Your task to perform on an android device: Open the calendar app, open the side menu, and click the "Day" option Image 0: 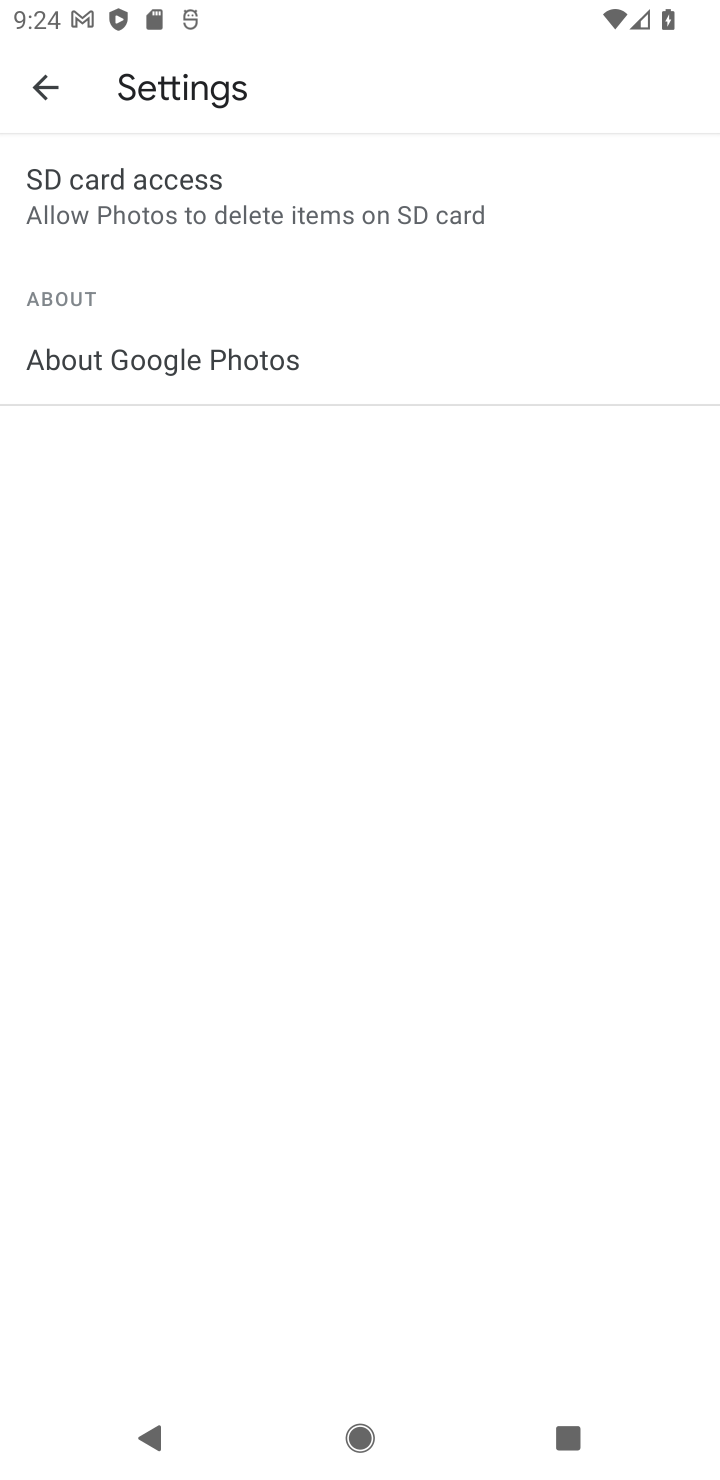
Step 0: press back button
Your task to perform on an android device: Open the calendar app, open the side menu, and click the "Day" option Image 1: 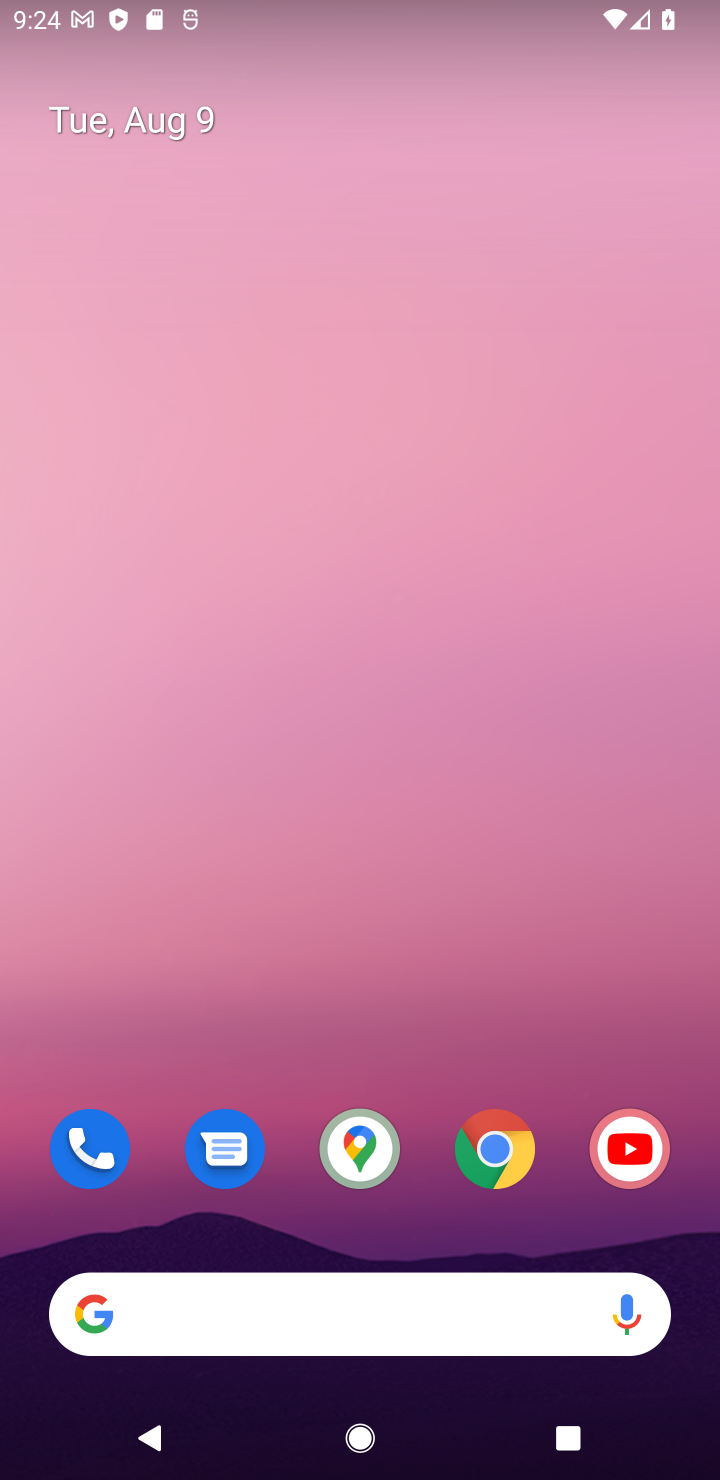
Step 1: drag from (224, 1323) to (429, 220)
Your task to perform on an android device: Open the calendar app, open the side menu, and click the "Day" option Image 2: 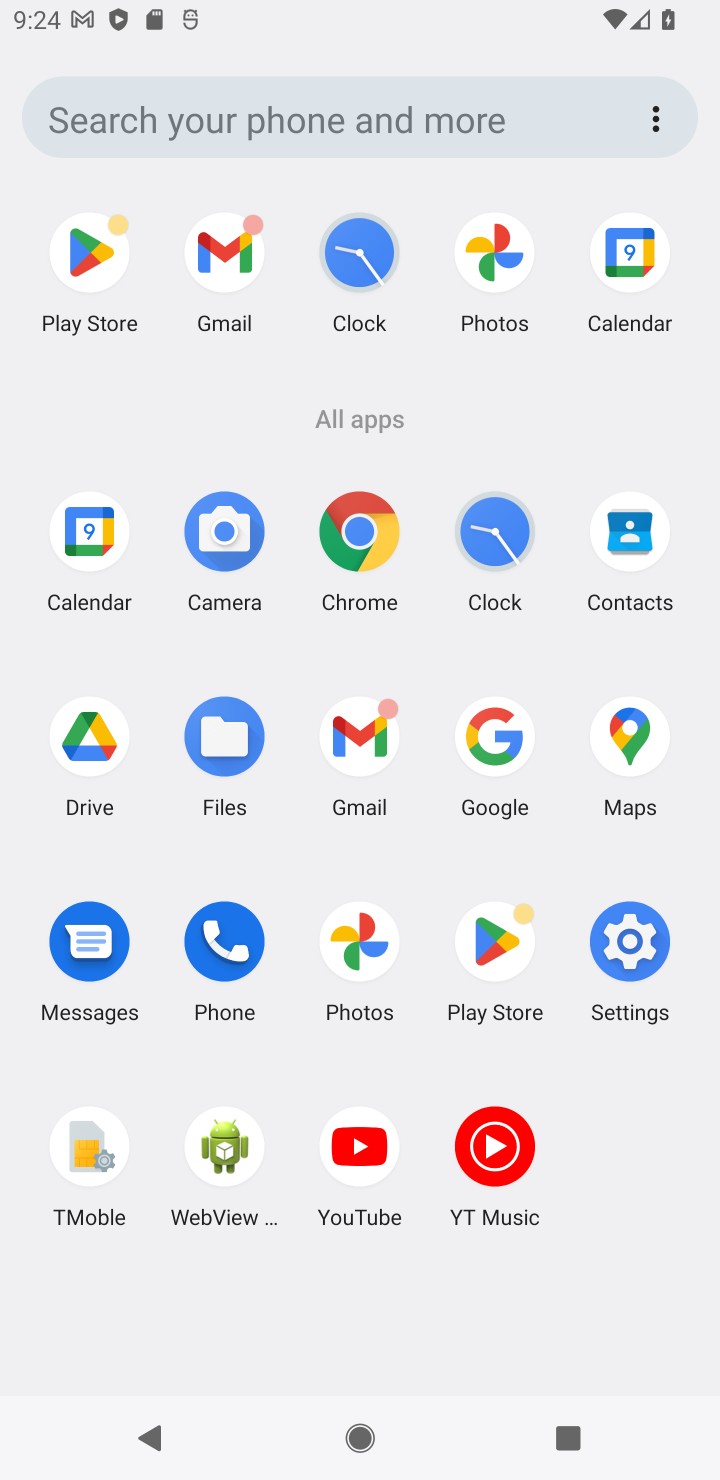
Step 2: click (621, 260)
Your task to perform on an android device: Open the calendar app, open the side menu, and click the "Day" option Image 3: 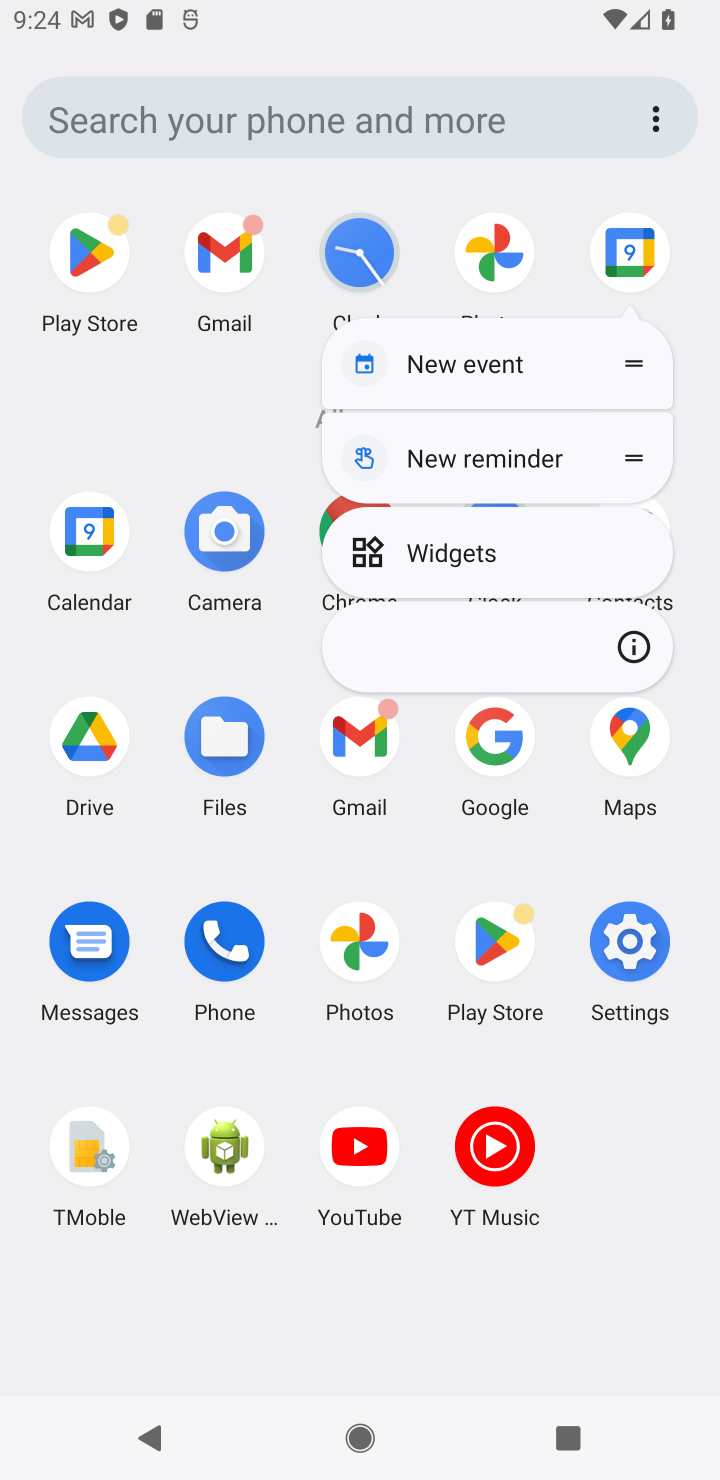
Step 3: click (647, 246)
Your task to perform on an android device: Open the calendar app, open the side menu, and click the "Day" option Image 4: 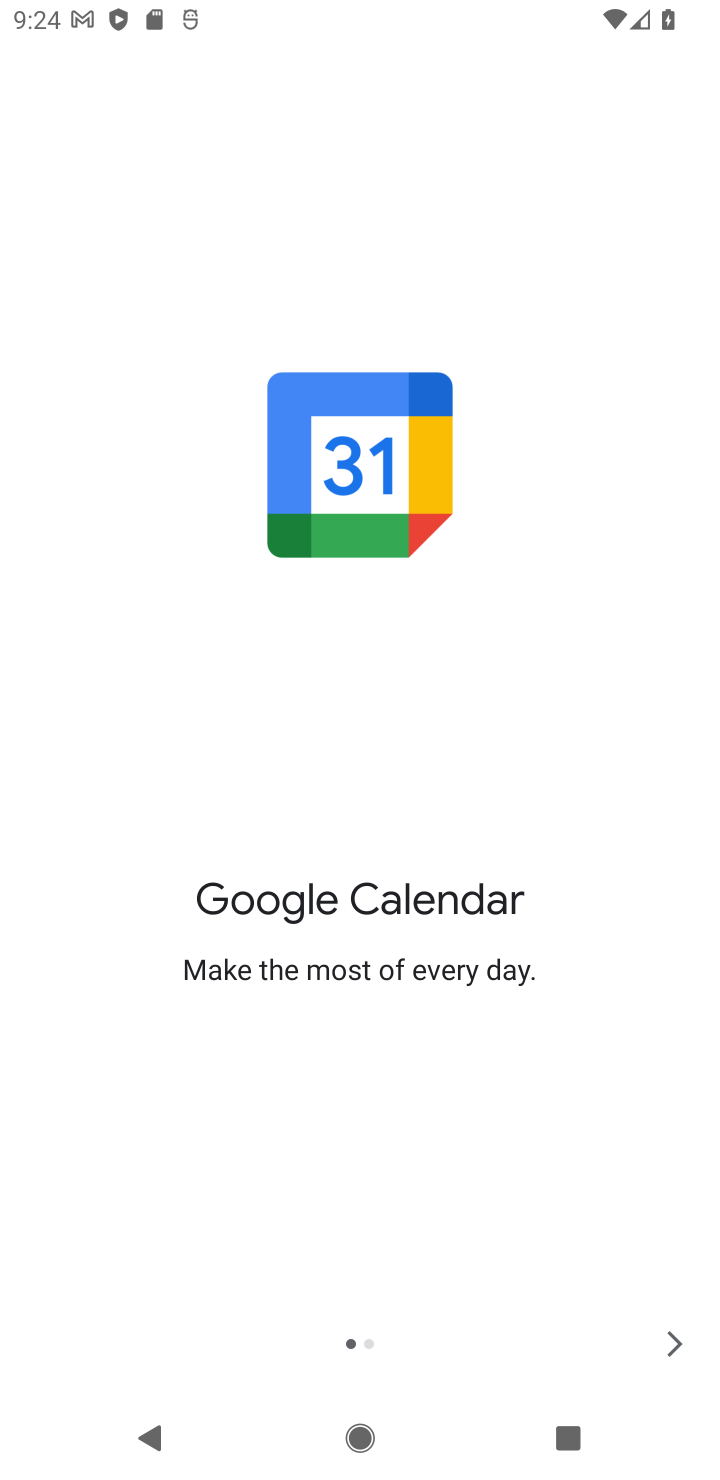
Step 4: click (678, 1331)
Your task to perform on an android device: Open the calendar app, open the side menu, and click the "Day" option Image 5: 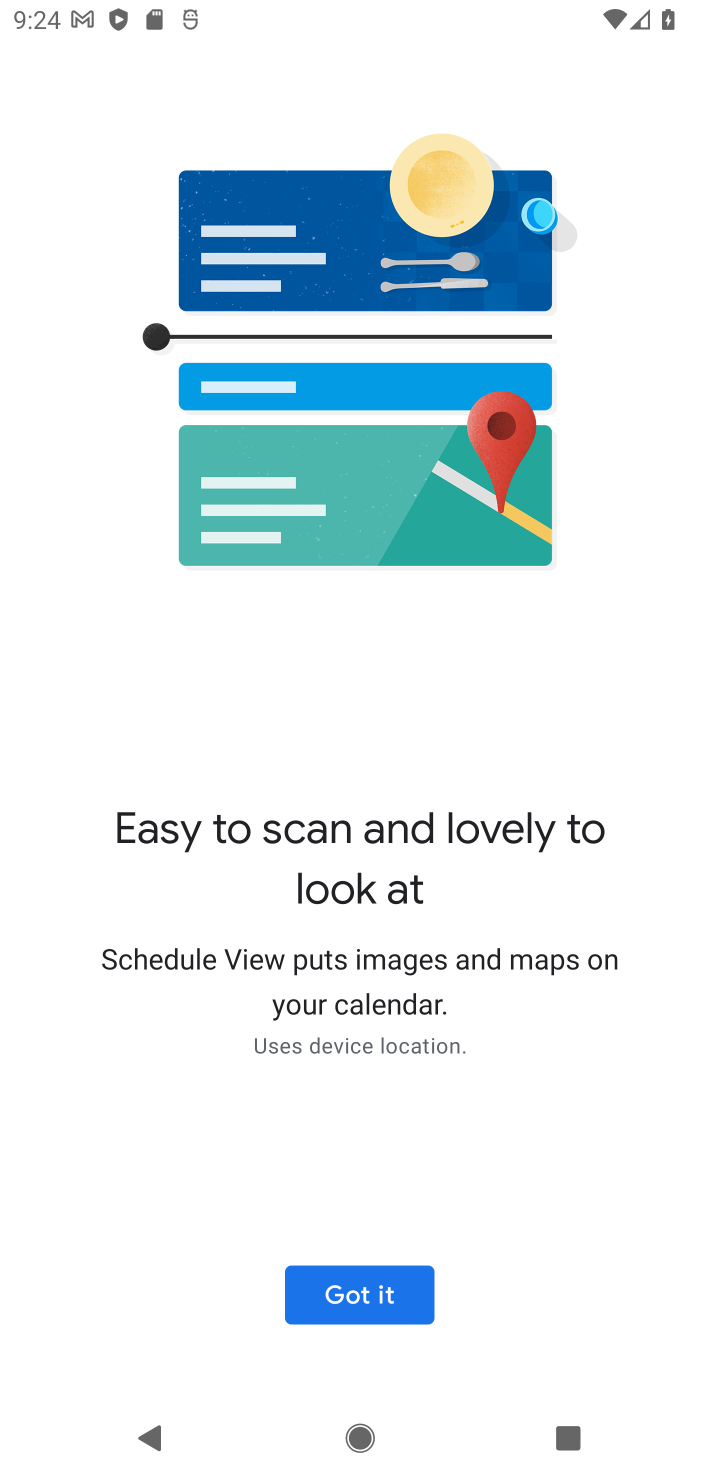
Step 5: click (348, 1290)
Your task to perform on an android device: Open the calendar app, open the side menu, and click the "Day" option Image 6: 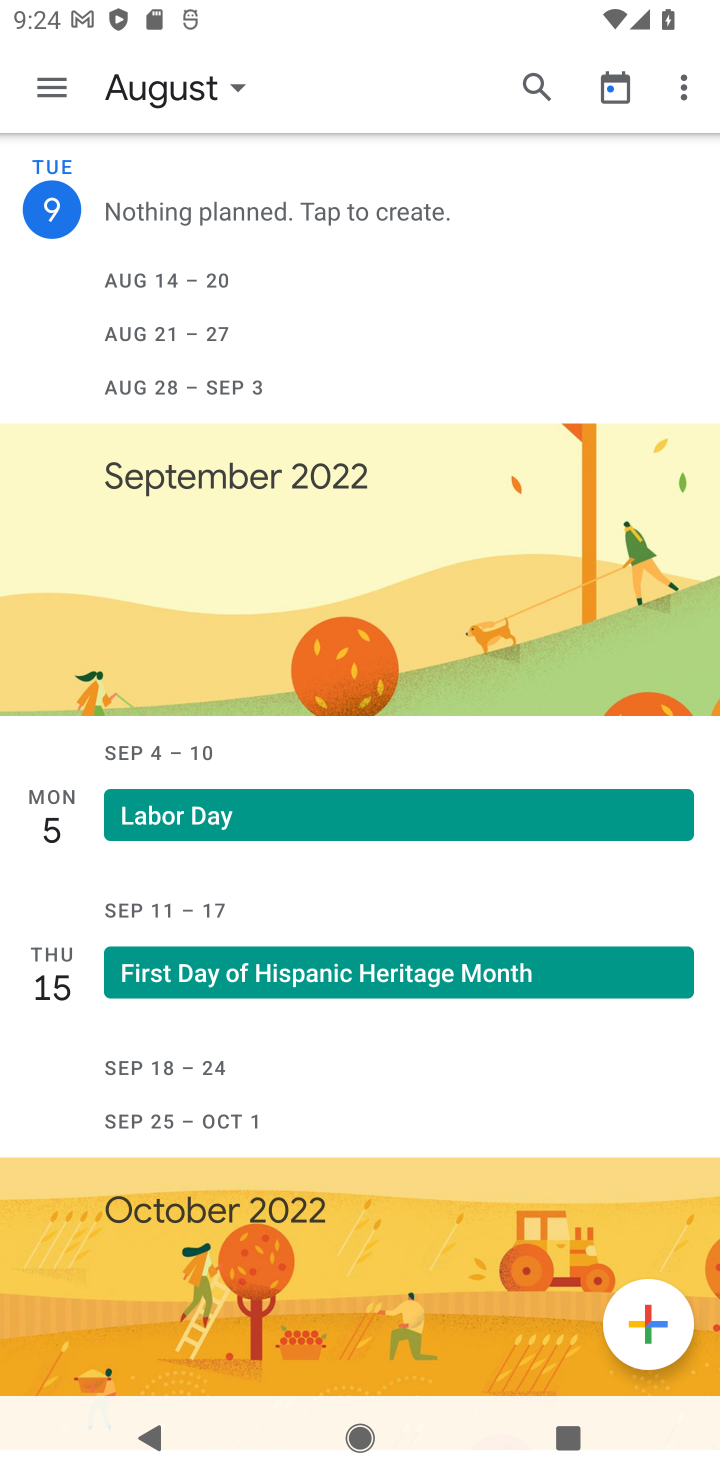
Step 6: click (54, 69)
Your task to perform on an android device: Open the calendar app, open the side menu, and click the "Day" option Image 7: 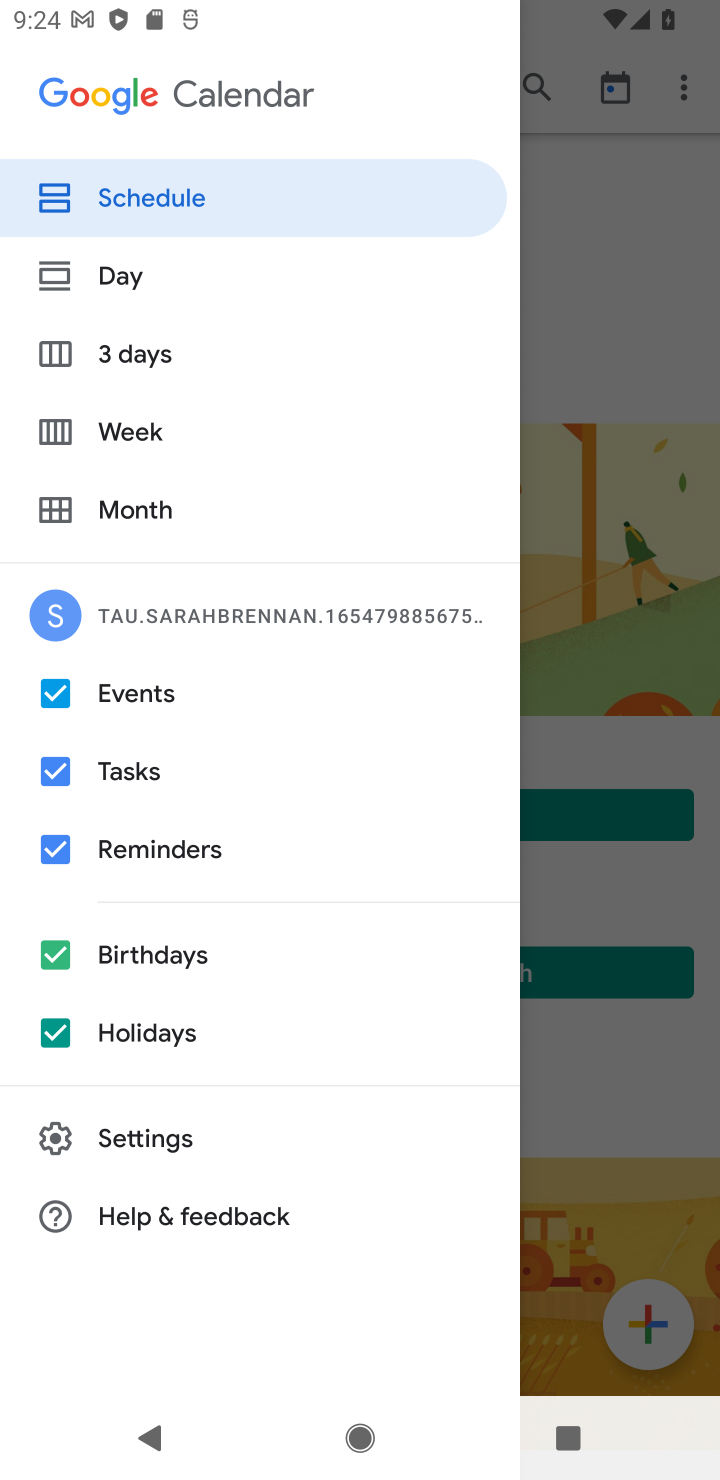
Step 7: click (190, 286)
Your task to perform on an android device: Open the calendar app, open the side menu, and click the "Day" option Image 8: 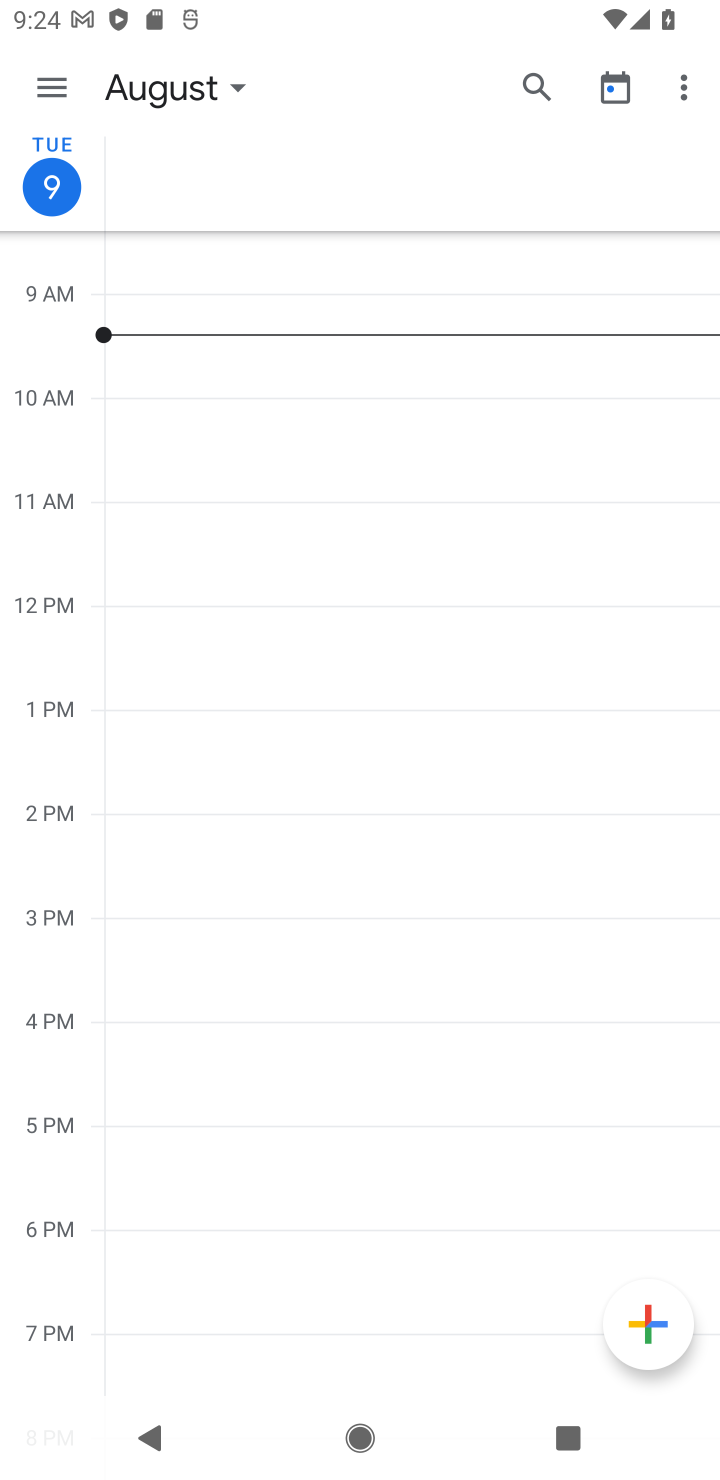
Step 8: click (61, 86)
Your task to perform on an android device: Open the calendar app, open the side menu, and click the "Day" option Image 9: 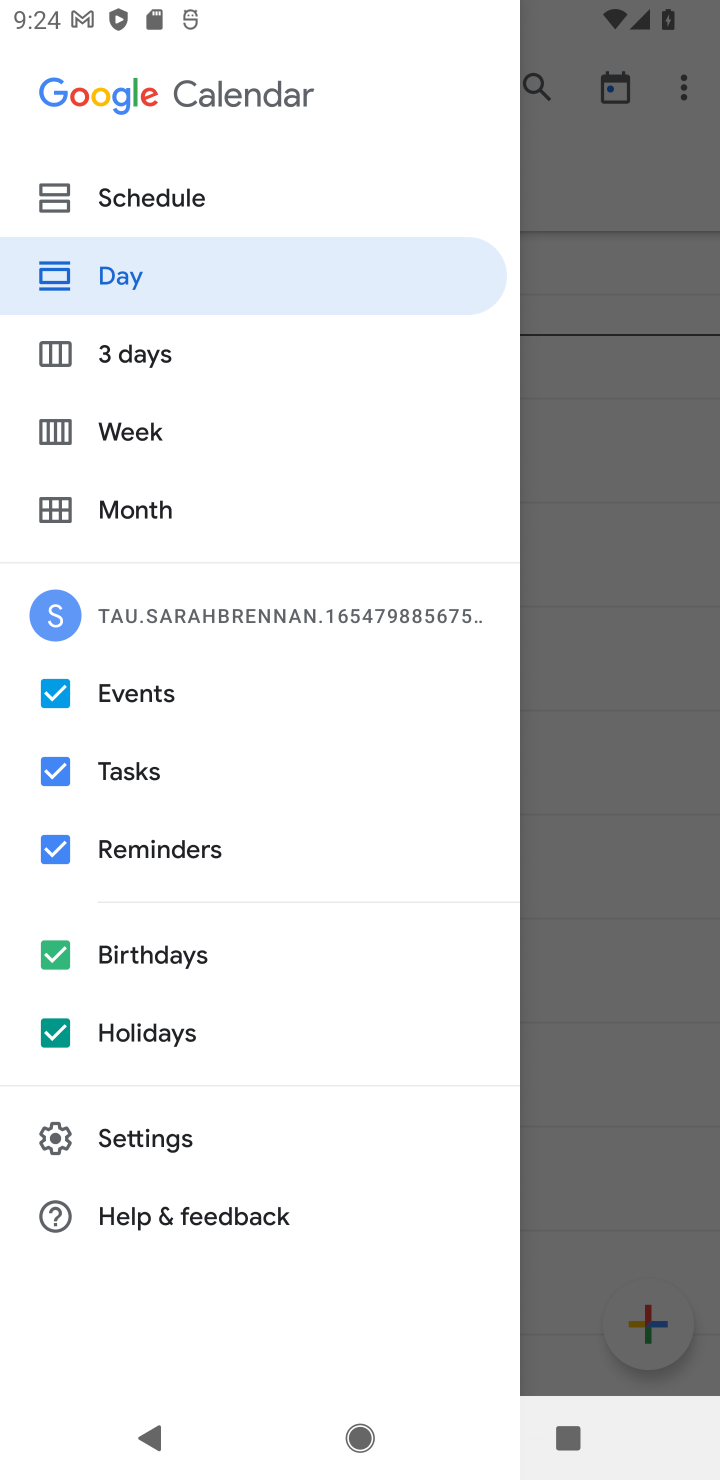
Step 9: task complete